Your task to perform on an android device: Go to Wikipedia Image 0: 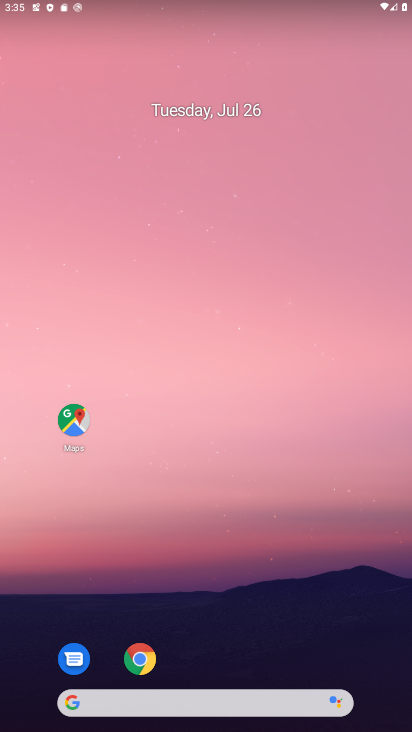
Step 0: click (136, 660)
Your task to perform on an android device: Go to Wikipedia Image 1: 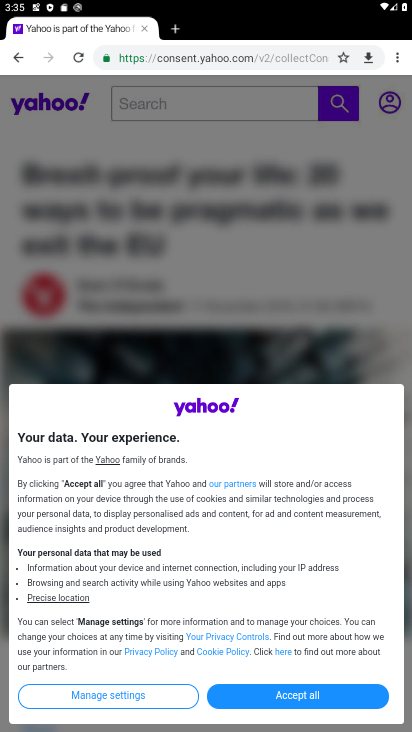
Step 1: click (245, 51)
Your task to perform on an android device: Go to Wikipedia Image 2: 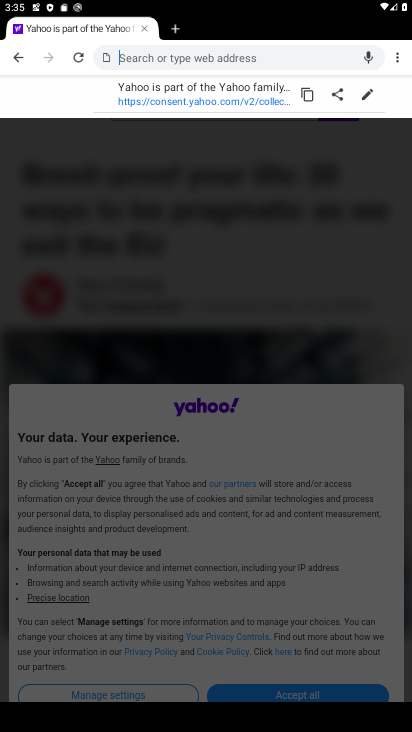
Step 2: type "wikipedia"
Your task to perform on an android device: Go to Wikipedia Image 3: 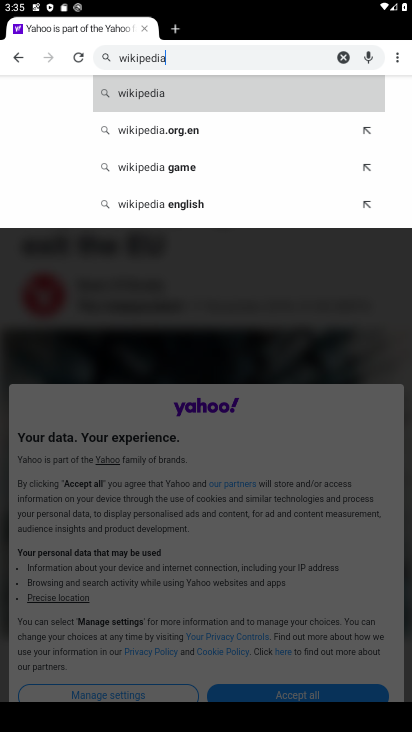
Step 3: click (259, 99)
Your task to perform on an android device: Go to Wikipedia Image 4: 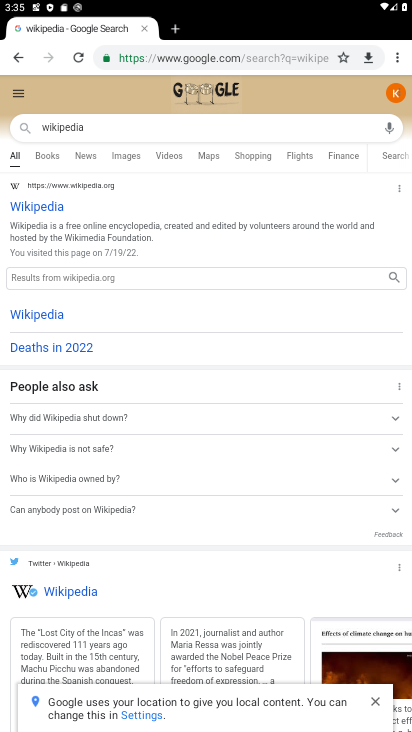
Step 4: click (31, 207)
Your task to perform on an android device: Go to Wikipedia Image 5: 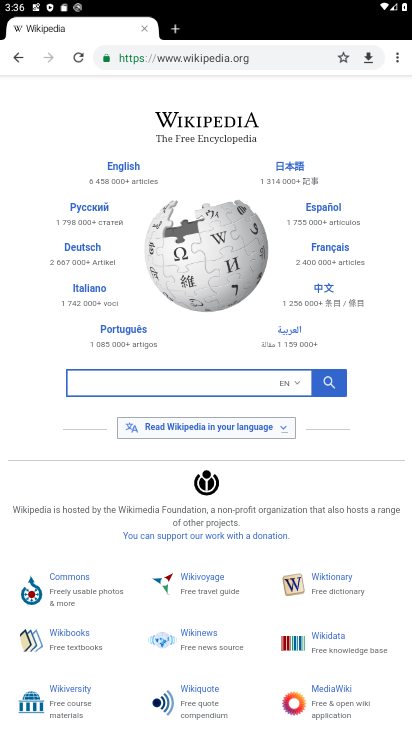
Step 5: task complete